Your task to perform on an android device: open app "AliExpress" (install if not already installed) Image 0: 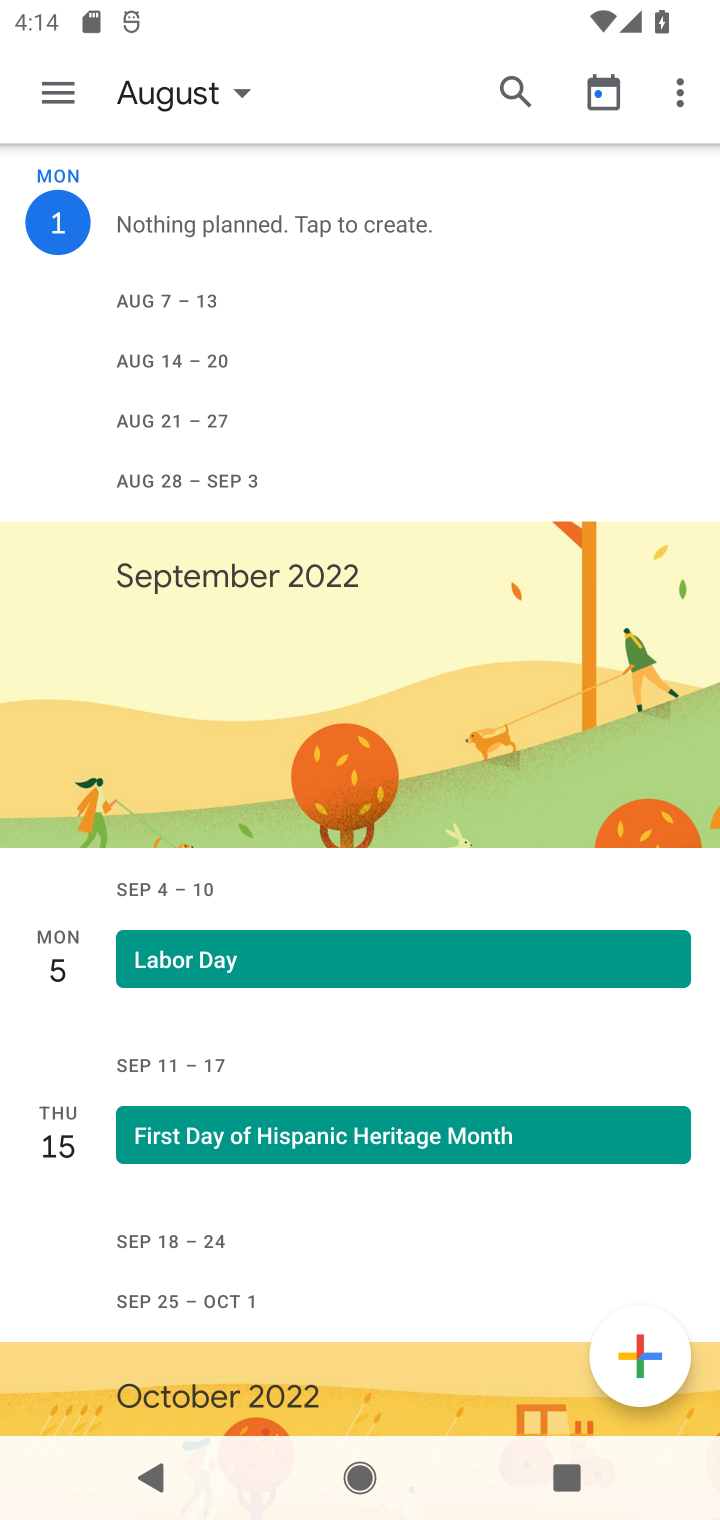
Step 0: press home button
Your task to perform on an android device: open app "AliExpress" (install if not already installed) Image 1: 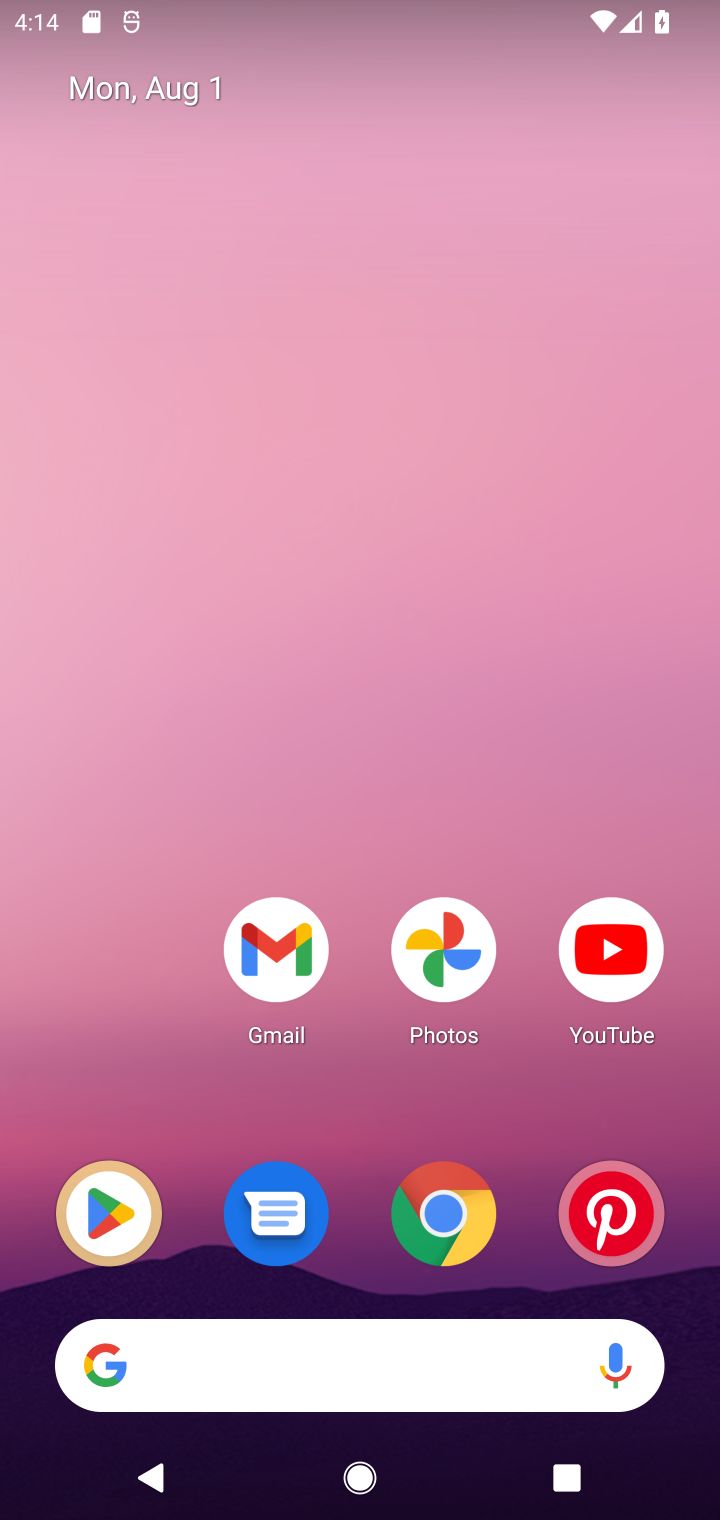
Step 1: click (108, 1212)
Your task to perform on an android device: open app "AliExpress" (install if not already installed) Image 2: 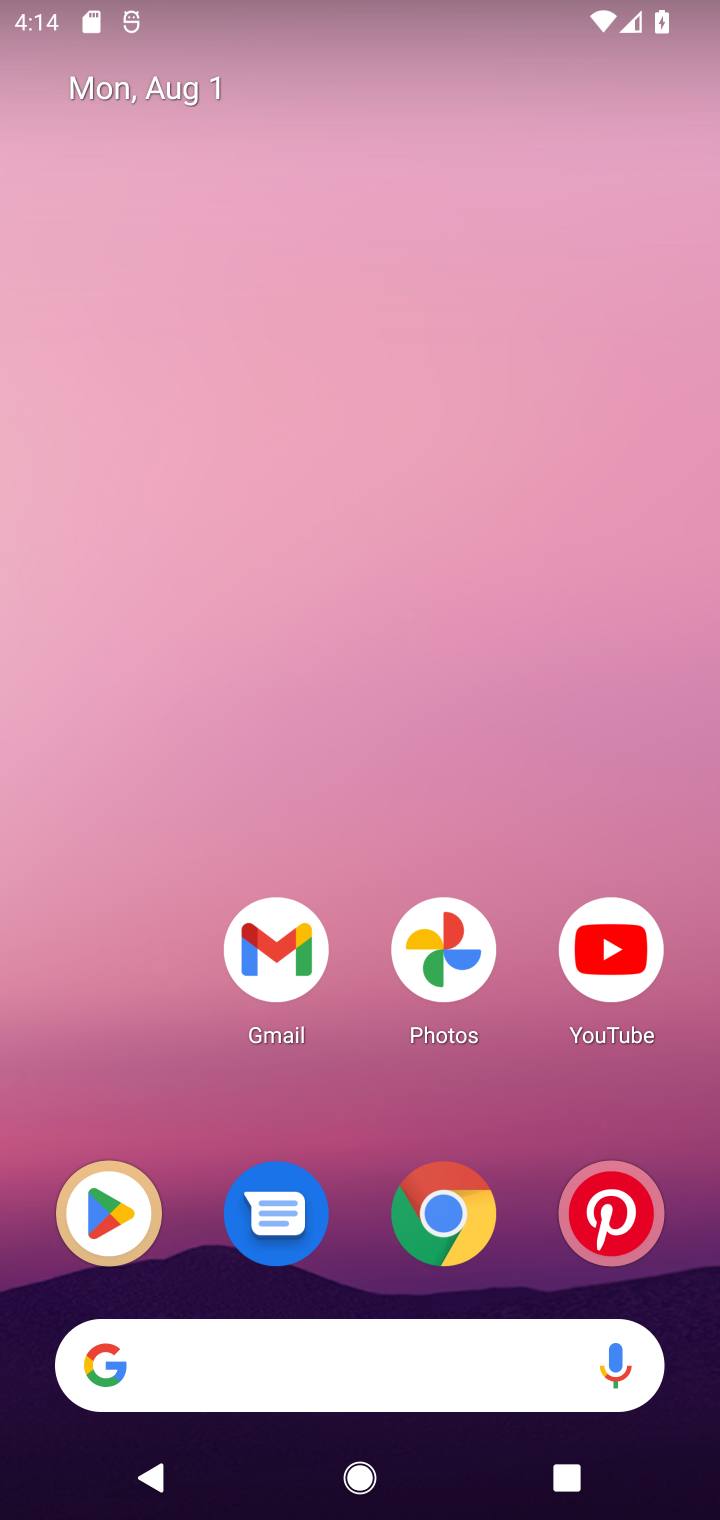
Step 2: drag from (345, 1136) to (483, 430)
Your task to perform on an android device: open app "AliExpress" (install if not already installed) Image 3: 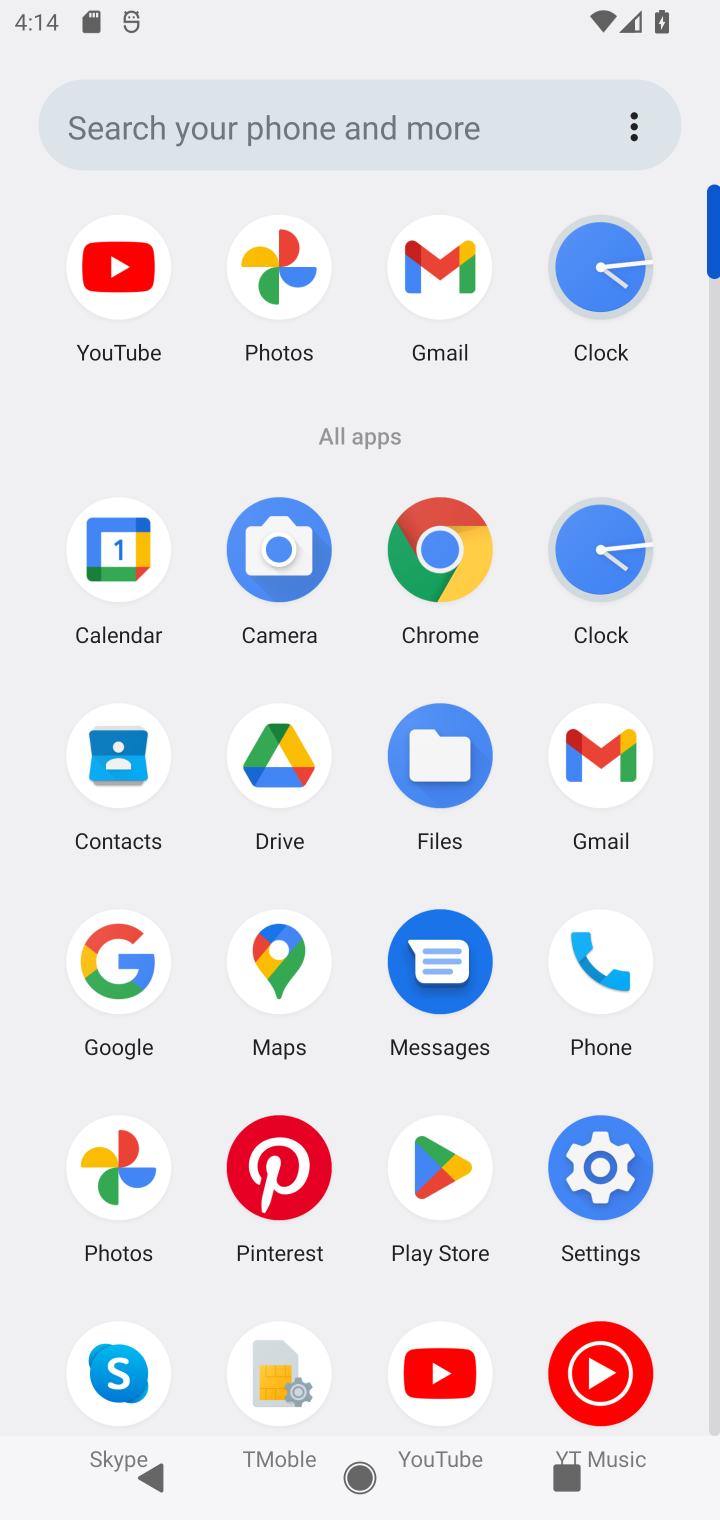
Step 3: click (451, 1168)
Your task to perform on an android device: open app "AliExpress" (install if not already installed) Image 4: 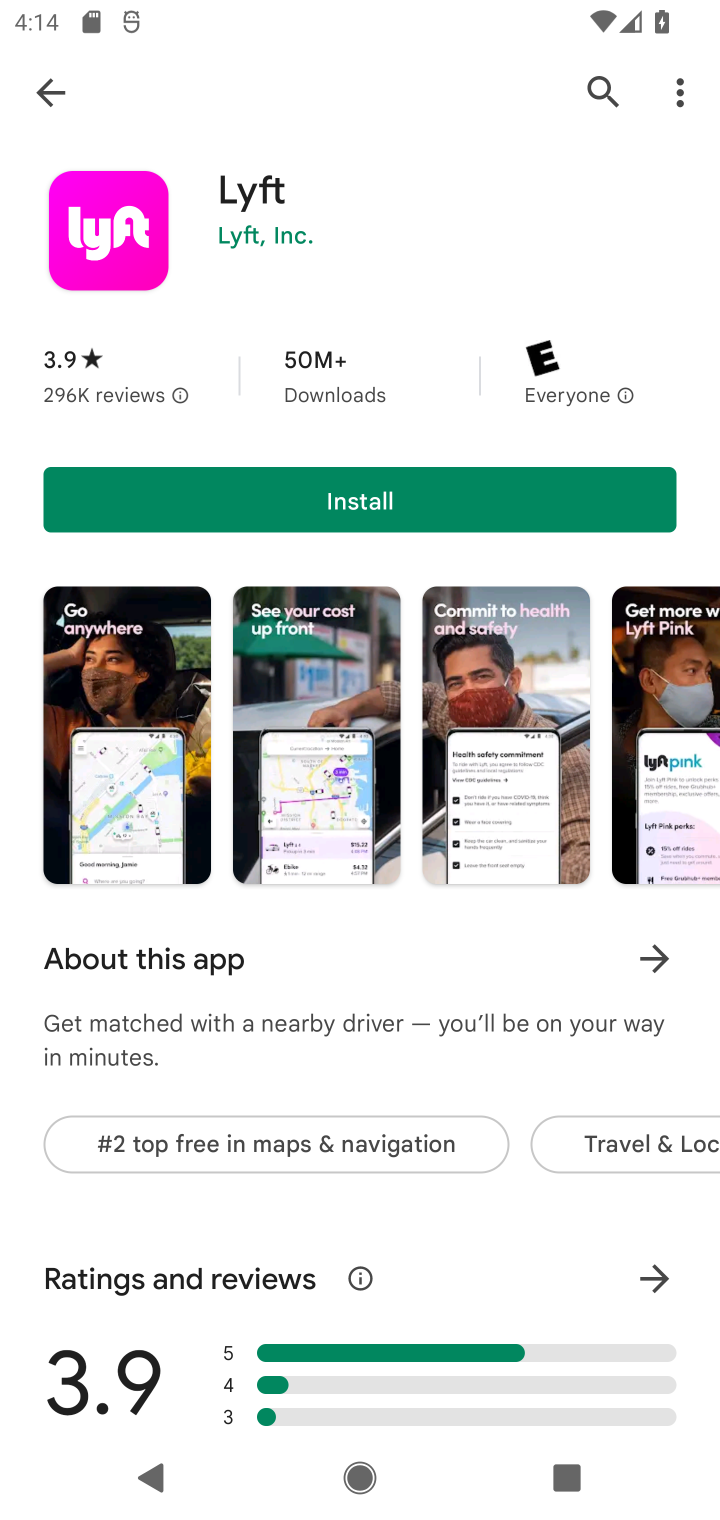
Step 4: click (599, 89)
Your task to perform on an android device: open app "AliExpress" (install if not already installed) Image 5: 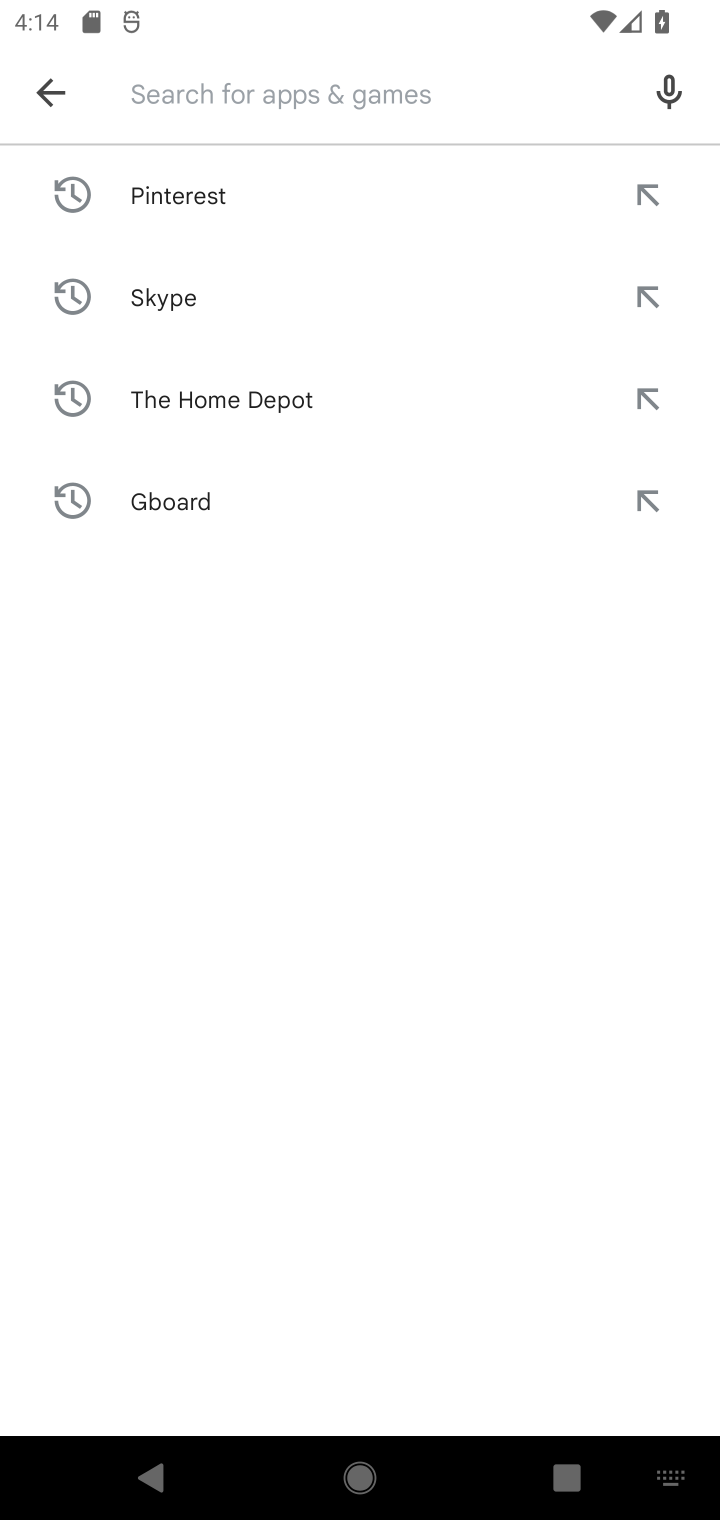
Step 5: type "AliExpress"
Your task to perform on an android device: open app "AliExpress" (install if not already installed) Image 6: 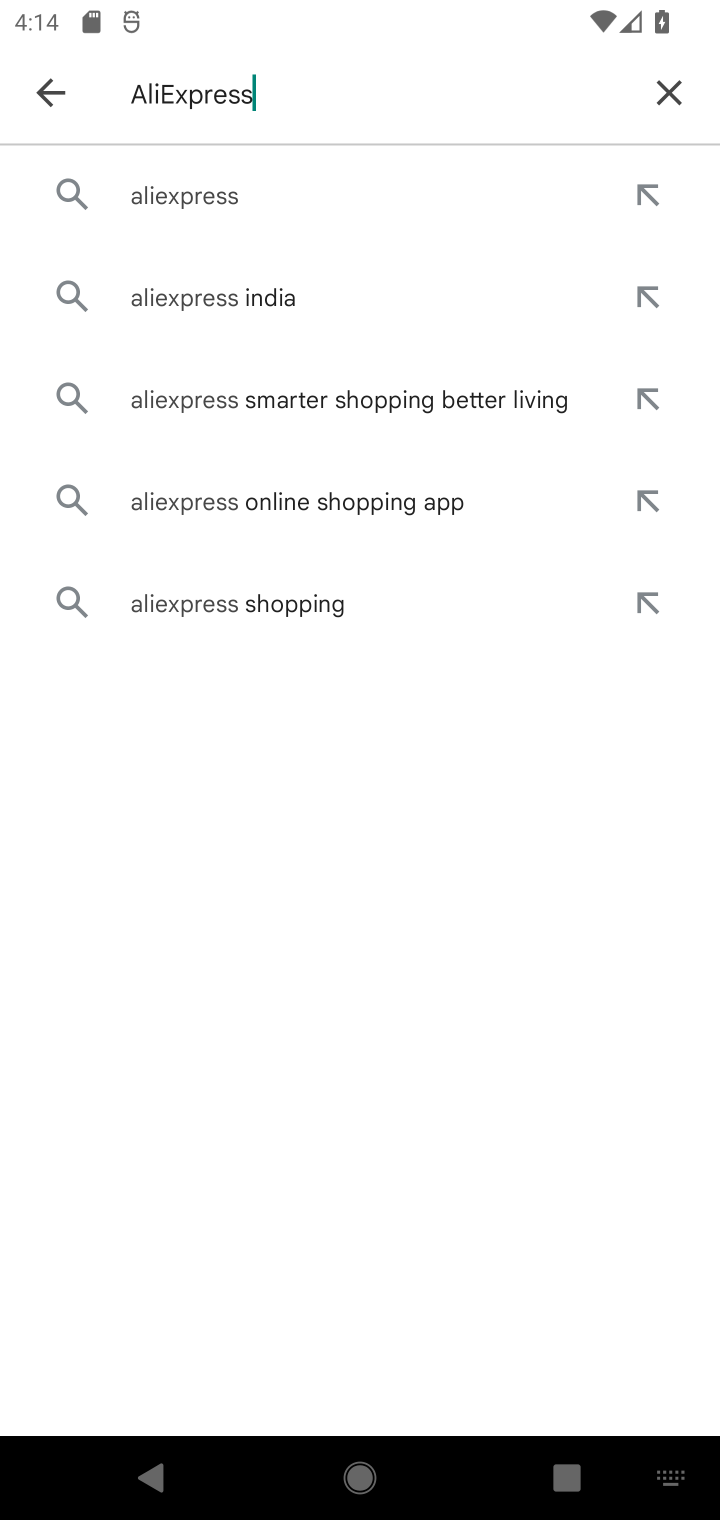
Step 6: press enter
Your task to perform on an android device: open app "AliExpress" (install if not already installed) Image 7: 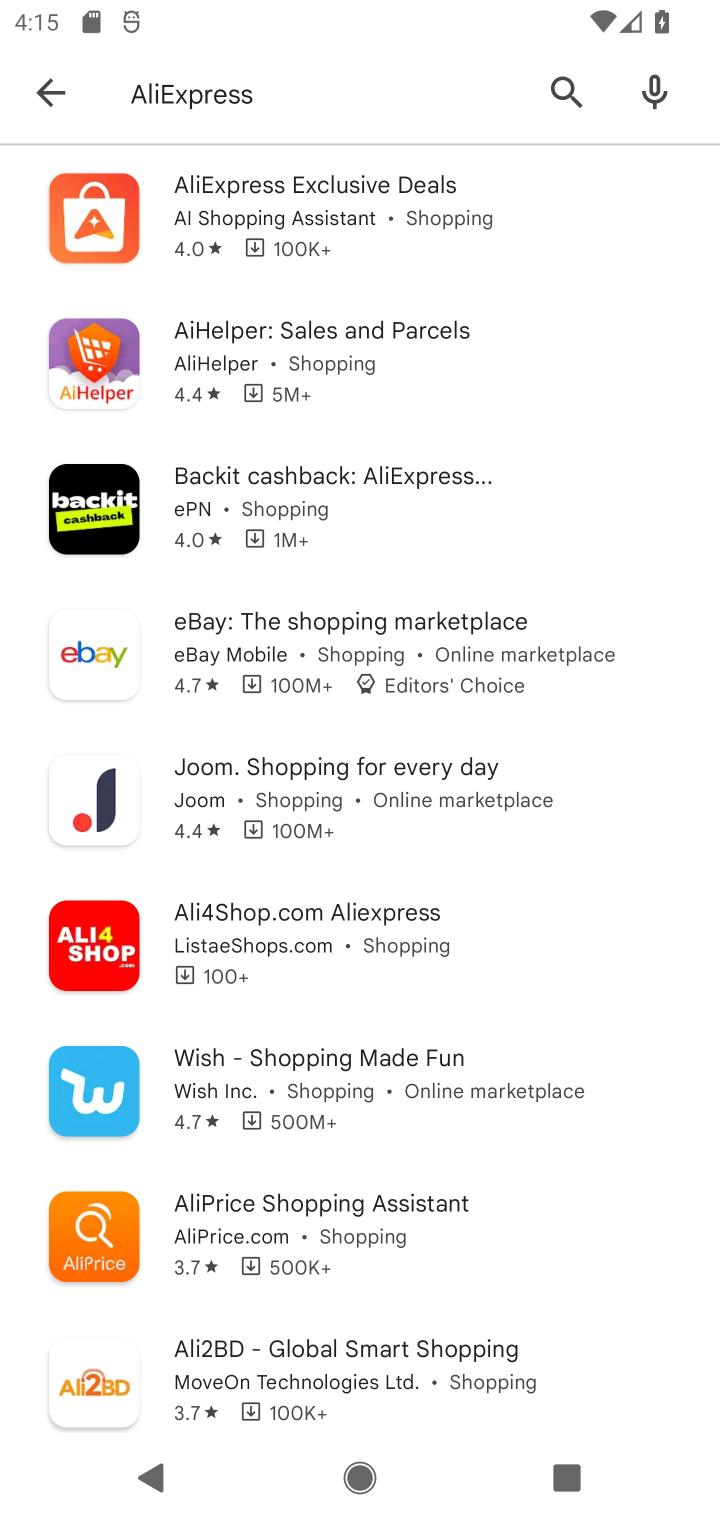
Step 7: click (441, 187)
Your task to perform on an android device: open app "AliExpress" (install if not already installed) Image 8: 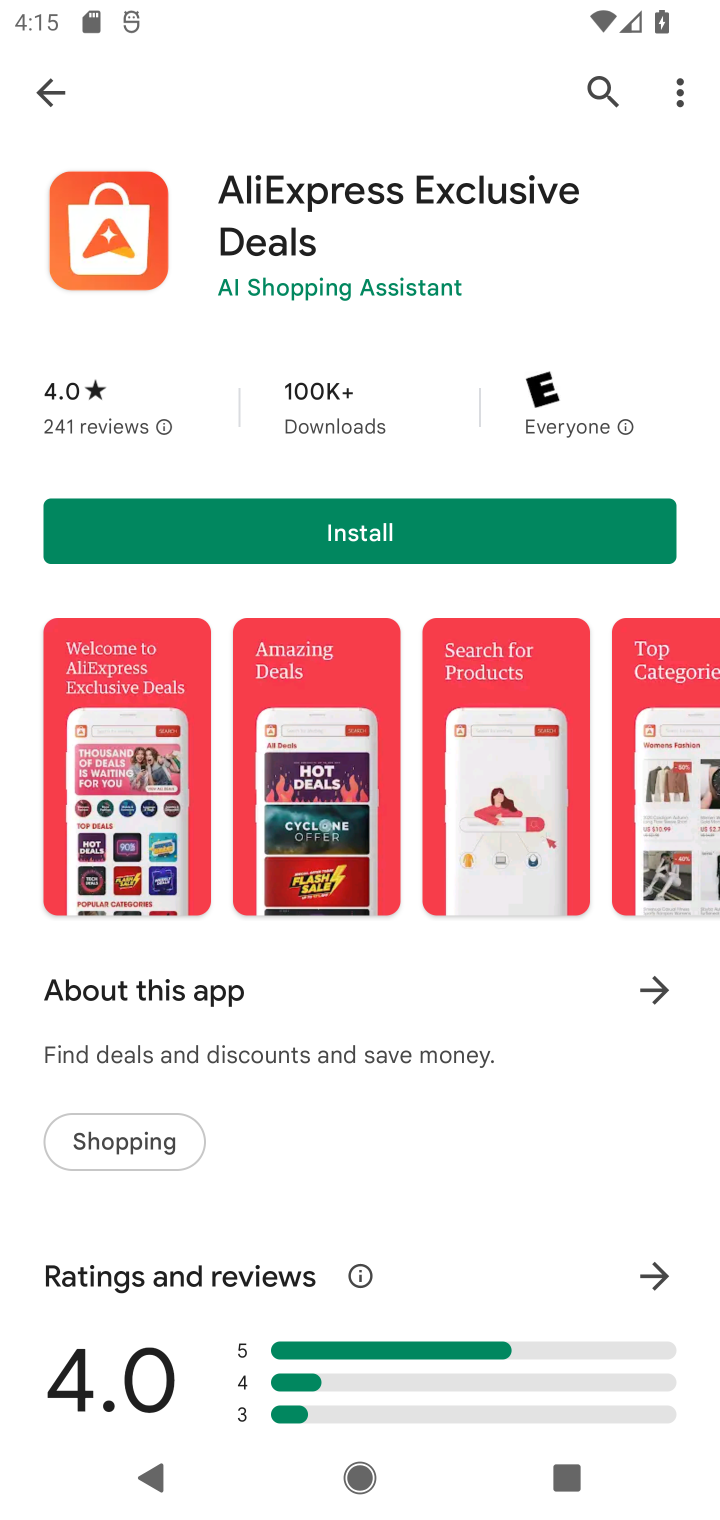
Step 8: task complete